Your task to perform on an android device: set the timer Image 0: 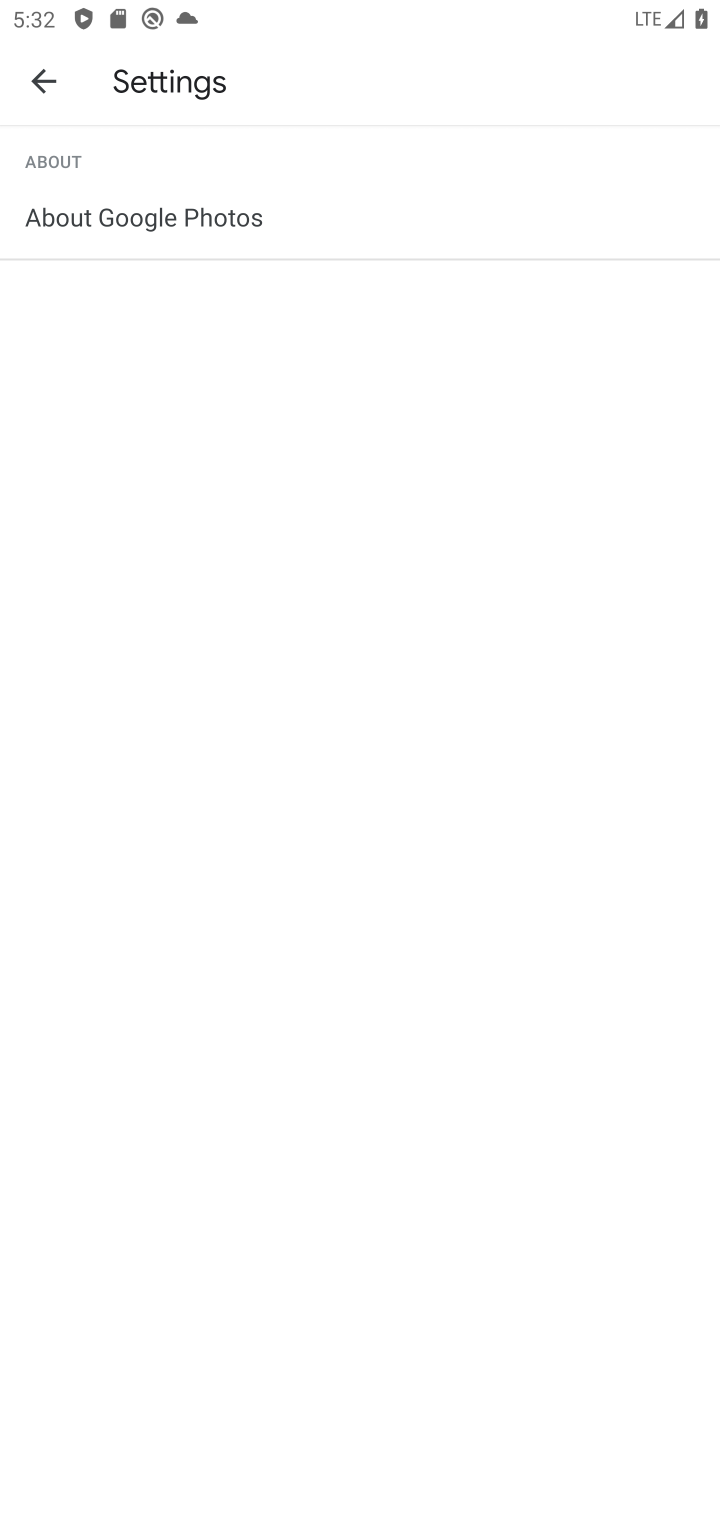
Step 0: press back button
Your task to perform on an android device: set the timer Image 1: 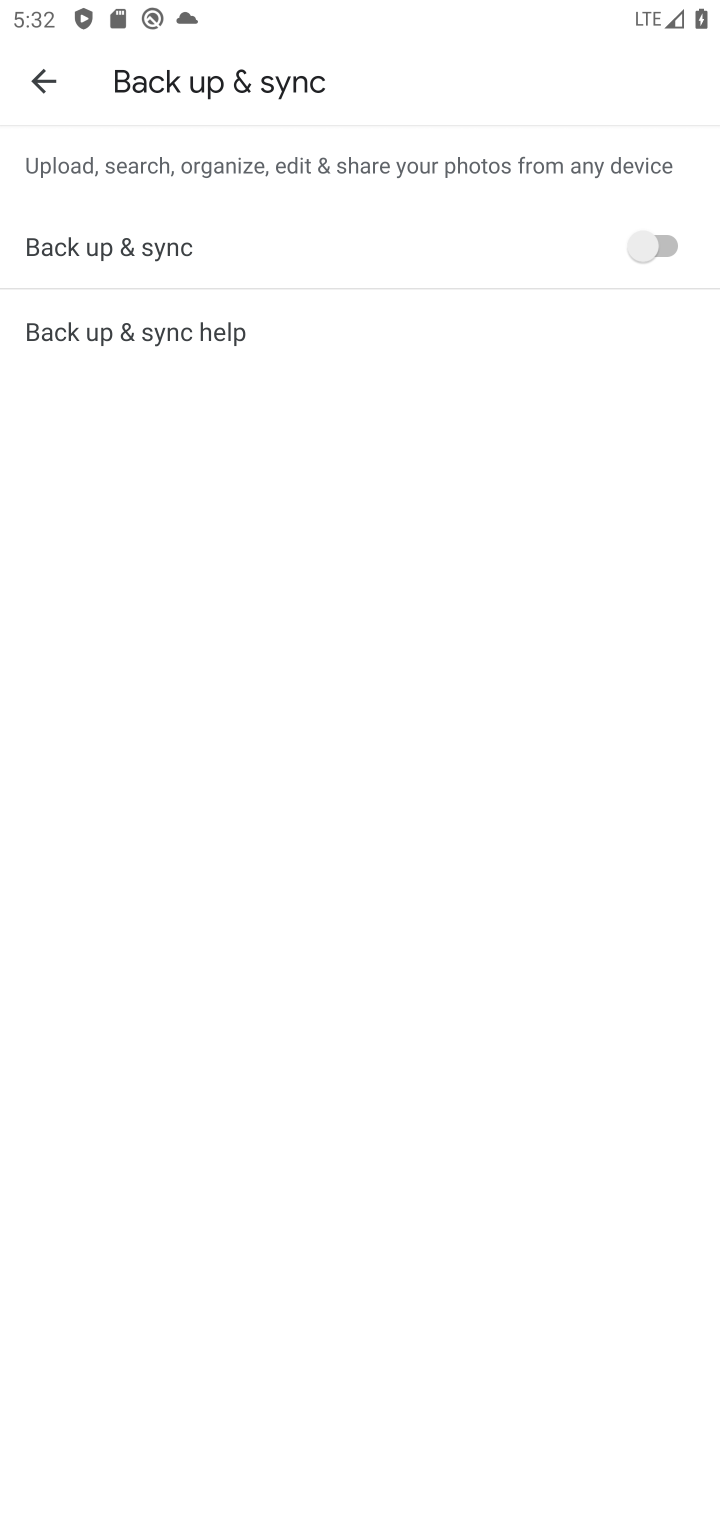
Step 1: press back button
Your task to perform on an android device: set the timer Image 2: 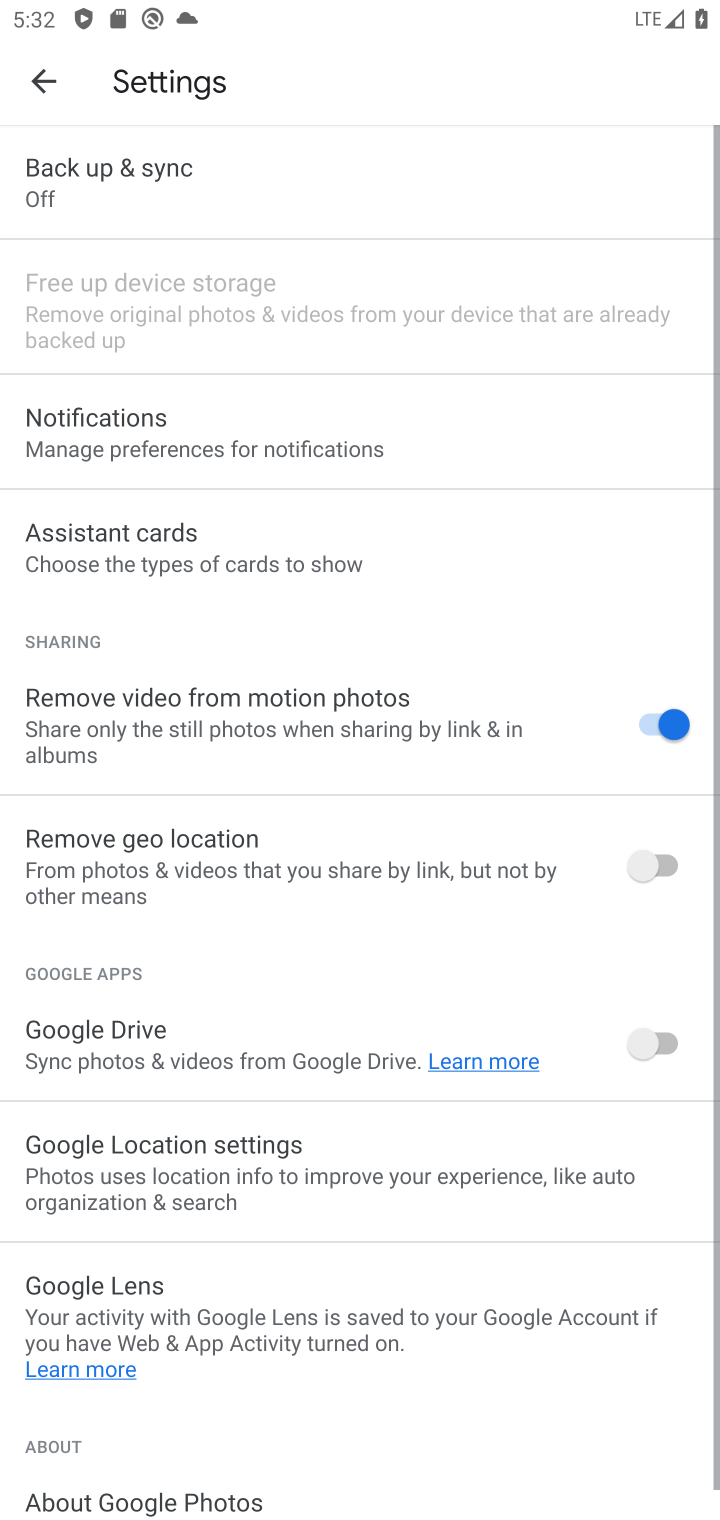
Step 2: press back button
Your task to perform on an android device: set the timer Image 3: 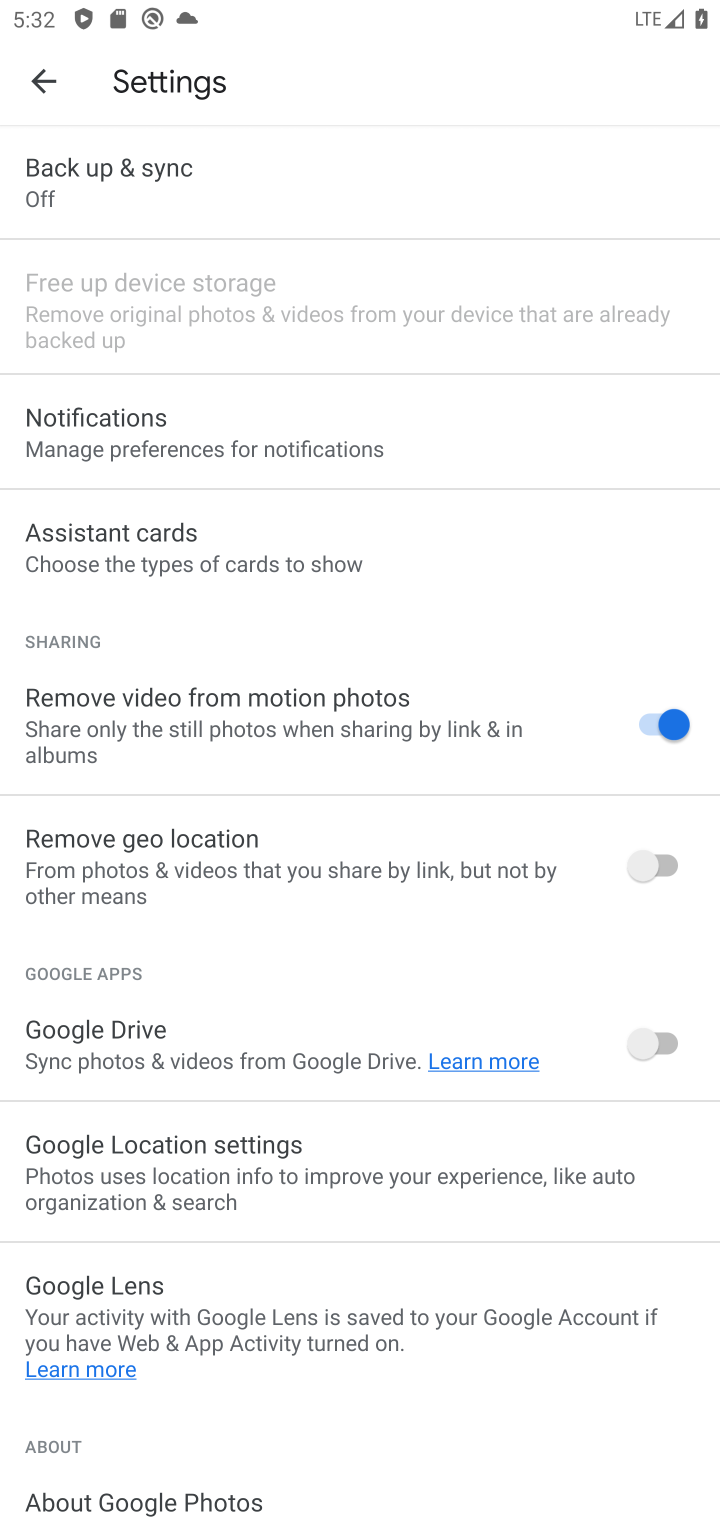
Step 3: press back button
Your task to perform on an android device: set the timer Image 4: 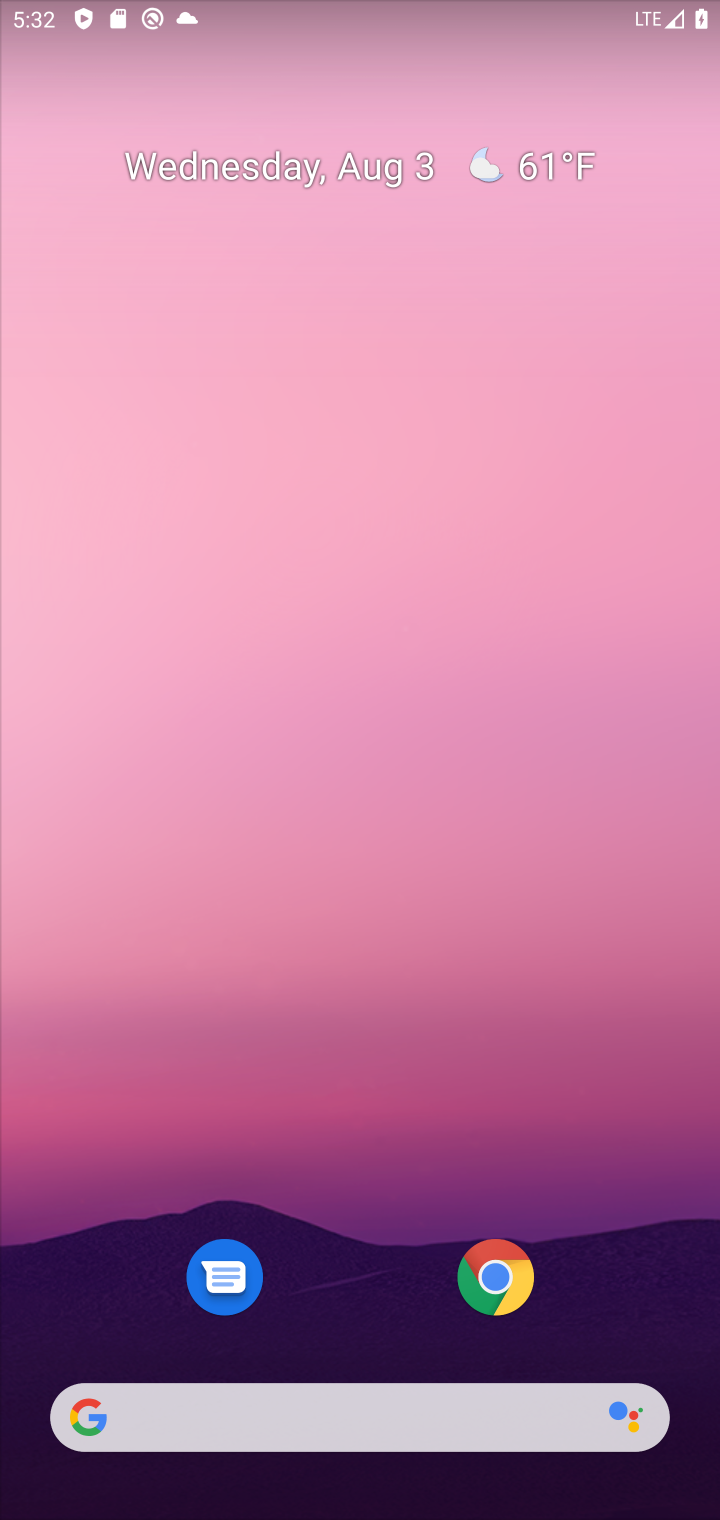
Step 4: drag from (360, 738) to (360, 18)
Your task to perform on an android device: set the timer Image 5: 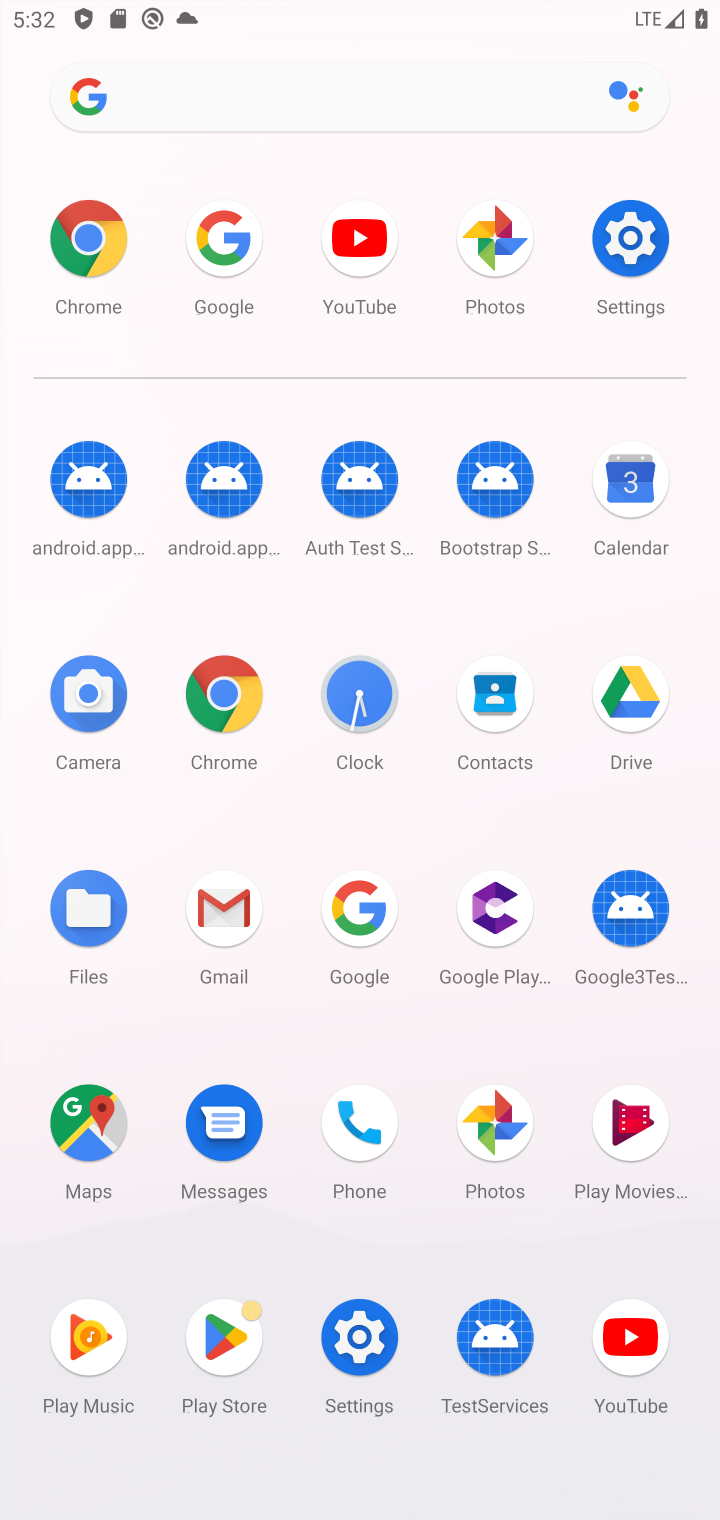
Step 5: click (344, 681)
Your task to perform on an android device: set the timer Image 6: 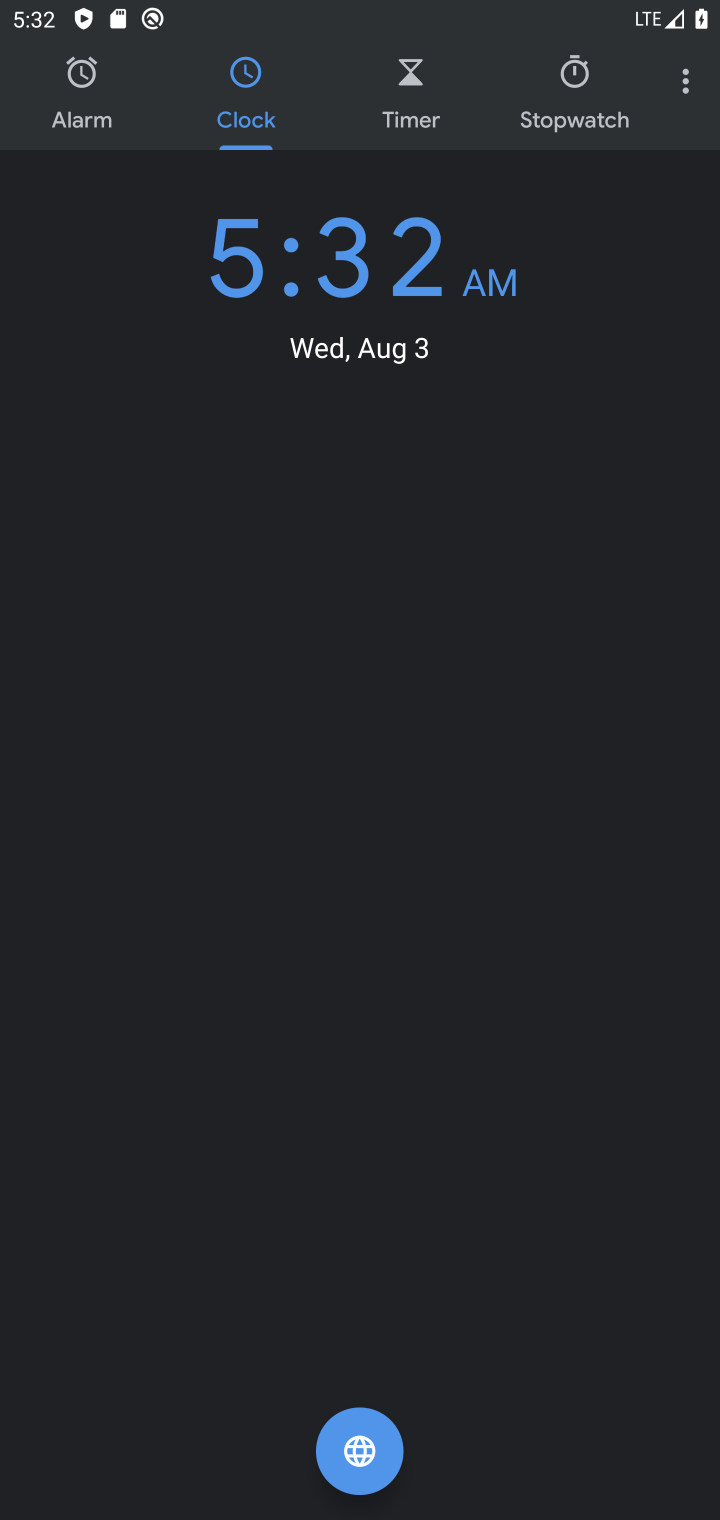
Step 6: click (422, 84)
Your task to perform on an android device: set the timer Image 7: 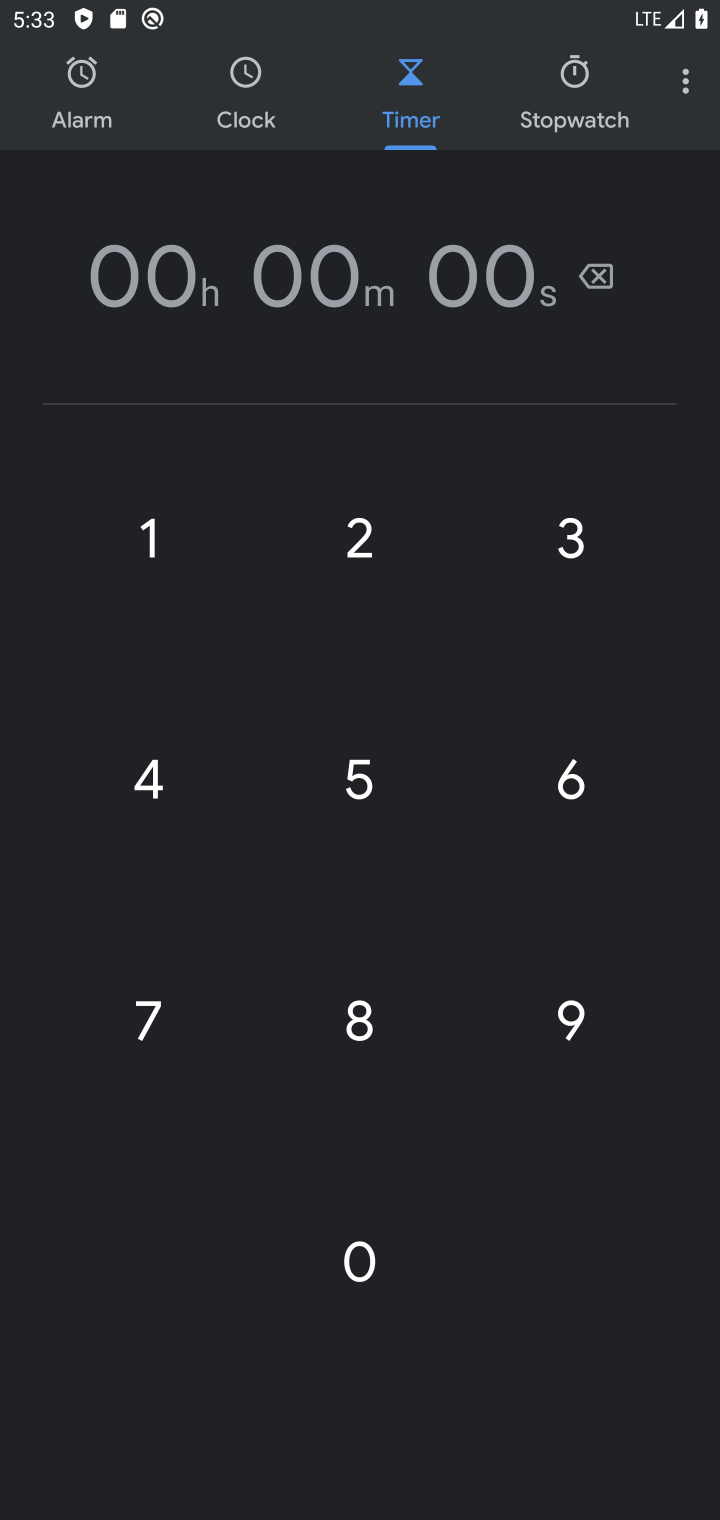
Step 7: task complete